Your task to perform on an android device: uninstall "Walmart Shopping & Grocery" Image 0: 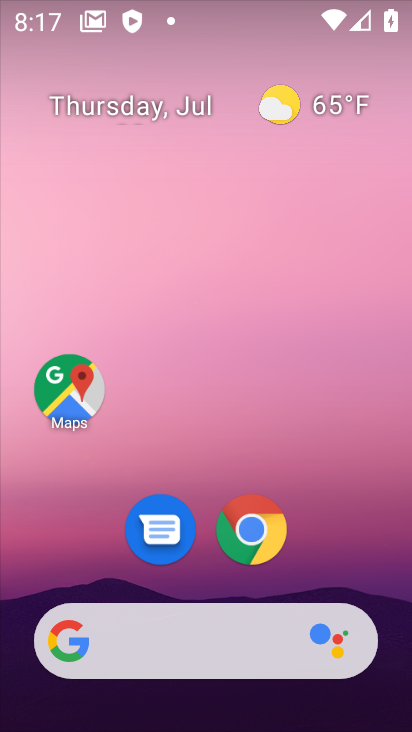
Step 0: drag from (330, 579) to (344, 42)
Your task to perform on an android device: uninstall "Walmart Shopping & Grocery" Image 1: 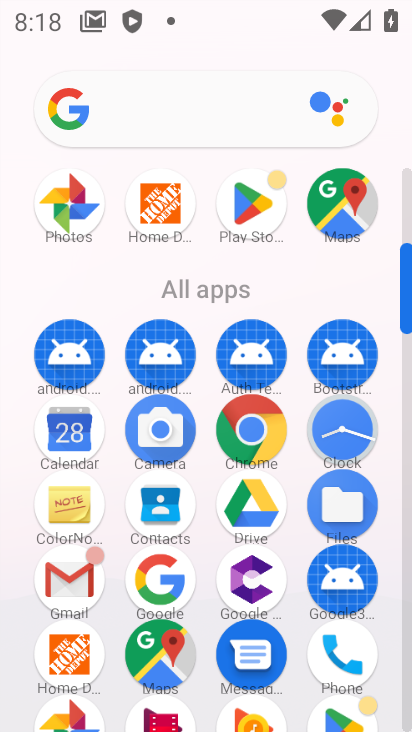
Step 1: click (407, 397)
Your task to perform on an android device: uninstall "Walmart Shopping & Grocery" Image 2: 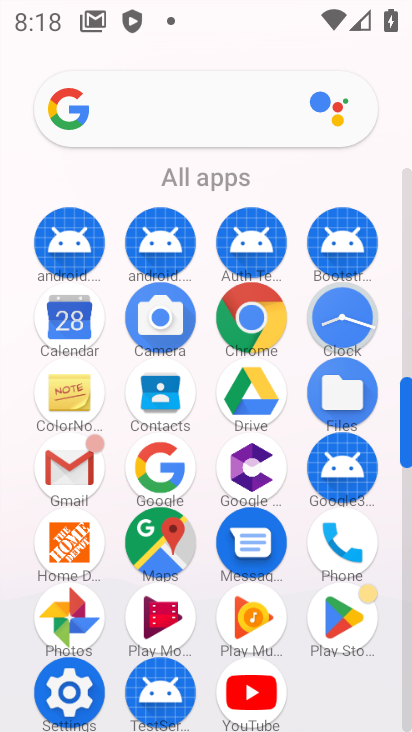
Step 2: task complete